Your task to perform on an android device: Go to calendar. Show me events next week Image 0: 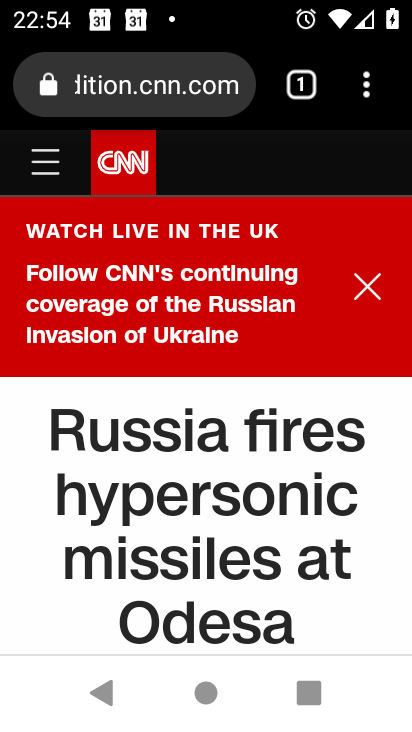
Step 0: press home button
Your task to perform on an android device: Go to calendar. Show me events next week Image 1: 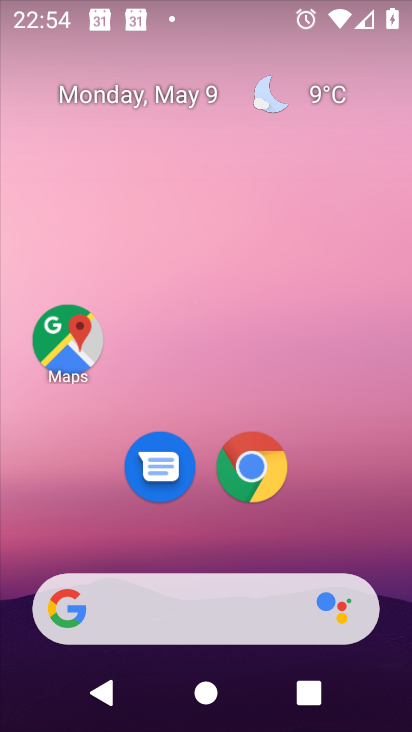
Step 1: drag from (328, 544) to (294, 8)
Your task to perform on an android device: Go to calendar. Show me events next week Image 2: 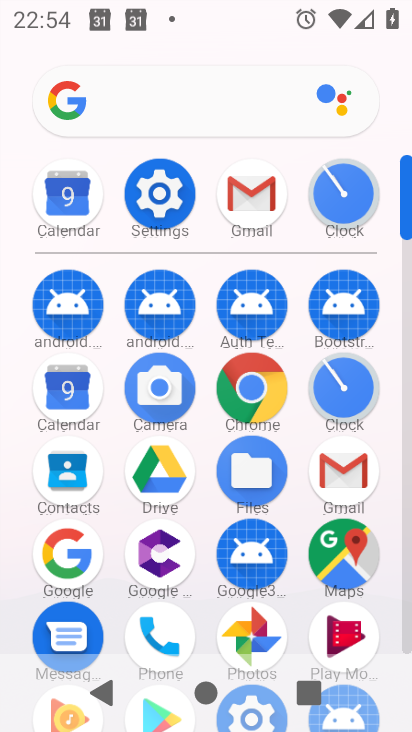
Step 2: click (70, 184)
Your task to perform on an android device: Go to calendar. Show me events next week Image 3: 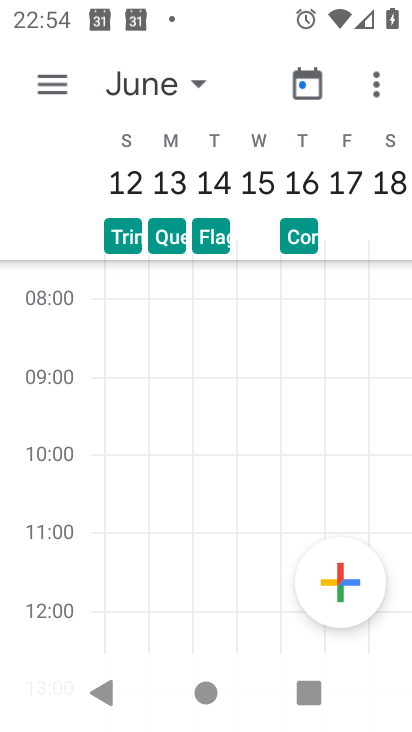
Step 3: click (193, 85)
Your task to perform on an android device: Go to calendar. Show me events next week Image 4: 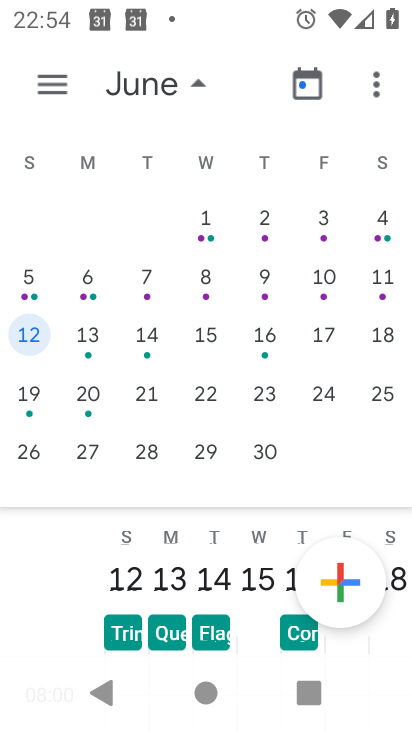
Step 4: drag from (72, 275) to (400, 334)
Your task to perform on an android device: Go to calendar. Show me events next week Image 5: 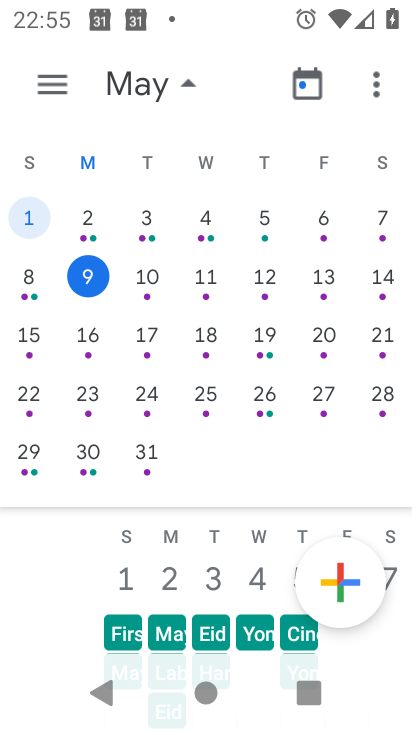
Step 5: click (82, 279)
Your task to perform on an android device: Go to calendar. Show me events next week Image 6: 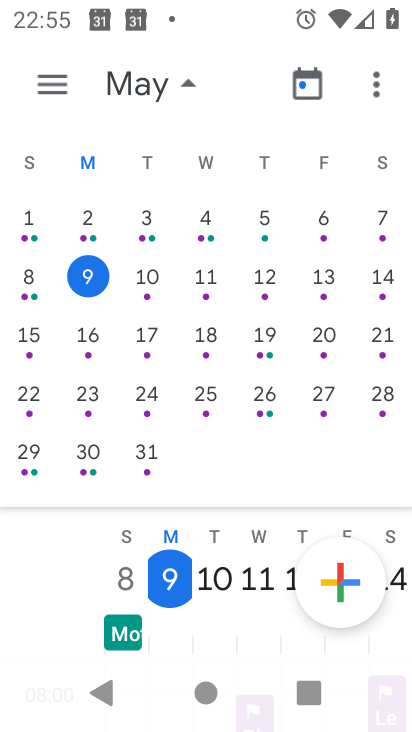
Step 6: click (44, 89)
Your task to perform on an android device: Go to calendar. Show me events next week Image 7: 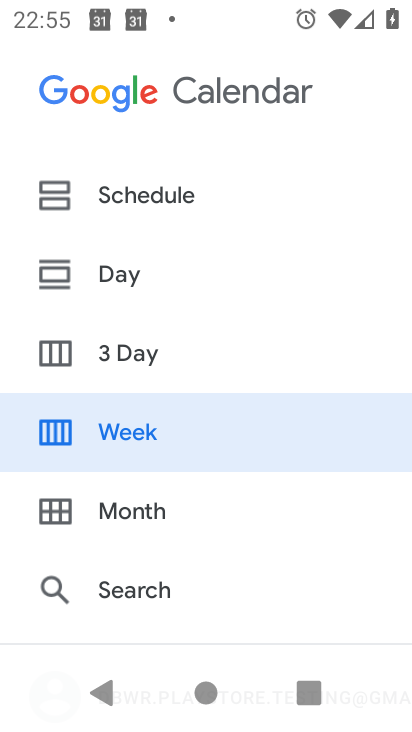
Step 7: click (98, 427)
Your task to perform on an android device: Go to calendar. Show me events next week Image 8: 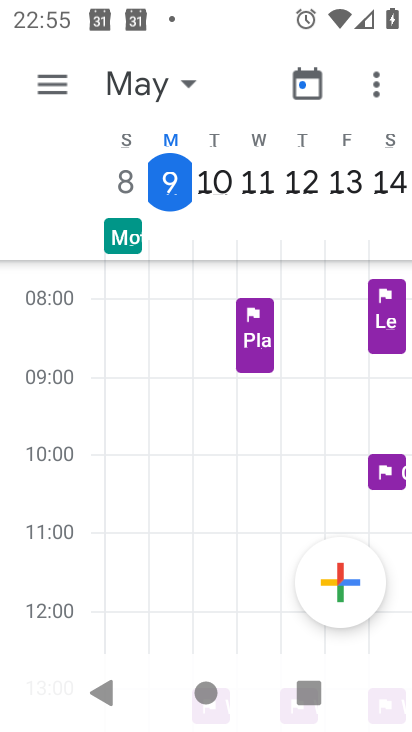
Step 8: drag from (308, 423) to (50, 434)
Your task to perform on an android device: Go to calendar. Show me events next week Image 9: 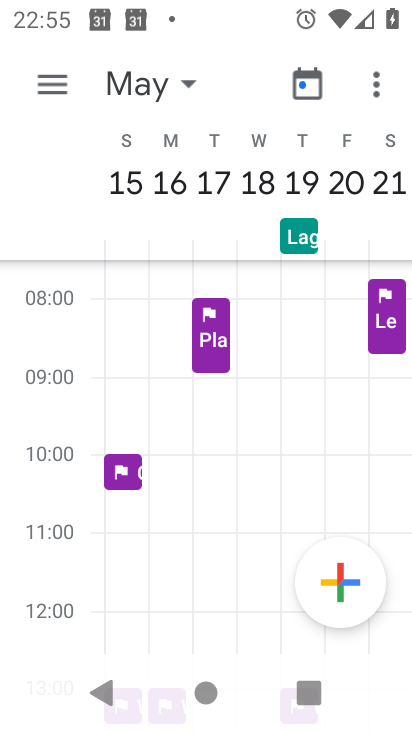
Step 9: drag from (235, 484) to (234, 344)
Your task to perform on an android device: Go to calendar. Show me events next week Image 10: 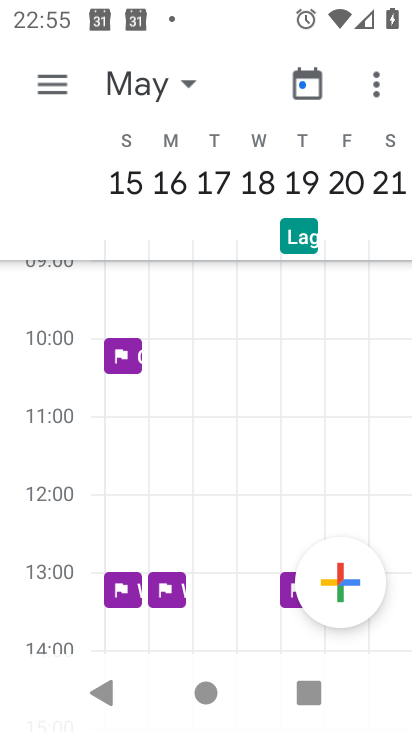
Step 10: click (61, 89)
Your task to perform on an android device: Go to calendar. Show me events next week Image 11: 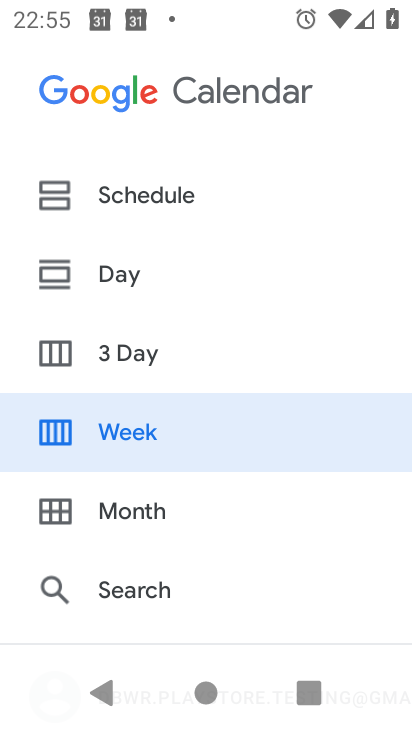
Step 11: drag from (156, 561) to (175, 127)
Your task to perform on an android device: Go to calendar. Show me events next week Image 12: 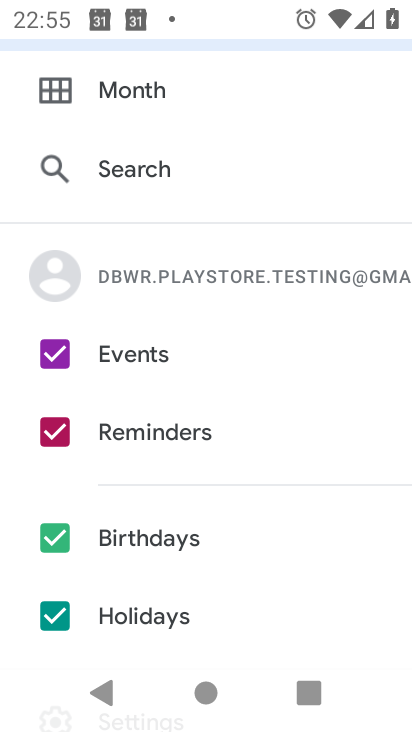
Step 12: click (62, 431)
Your task to perform on an android device: Go to calendar. Show me events next week Image 13: 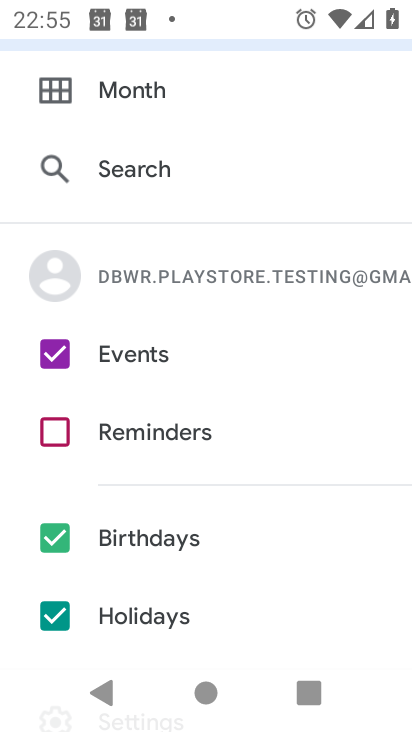
Step 13: click (57, 545)
Your task to perform on an android device: Go to calendar. Show me events next week Image 14: 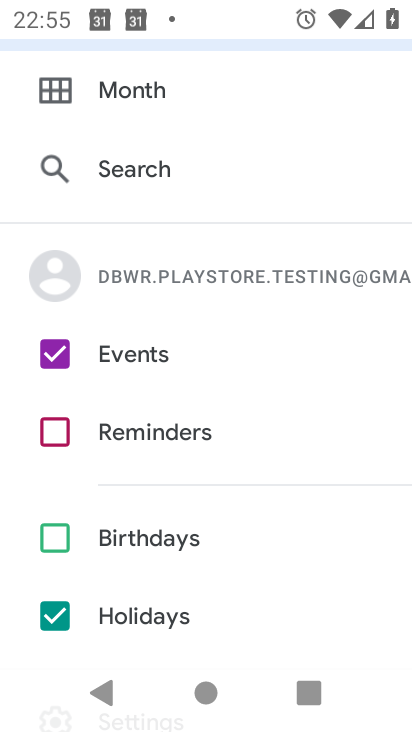
Step 14: click (60, 617)
Your task to perform on an android device: Go to calendar. Show me events next week Image 15: 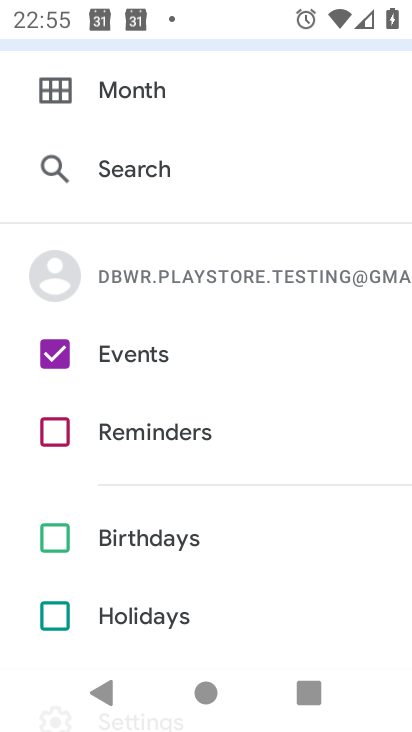
Step 15: drag from (258, 547) to (237, 584)
Your task to perform on an android device: Go to calendar. Show me events next week Image 16: 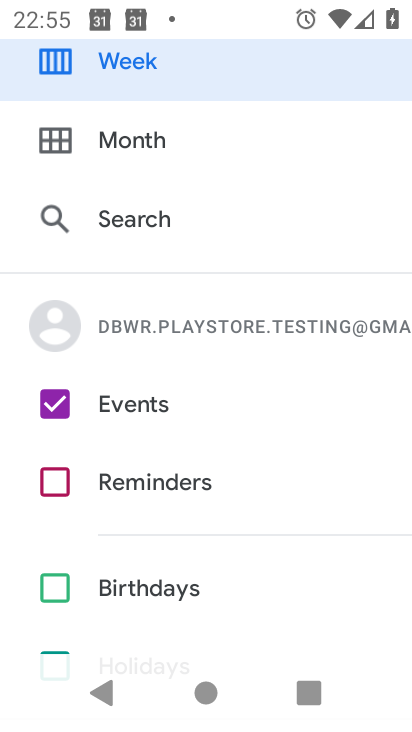
Step 16: click (128, 61)
Your task to perform on an android device: Go to calendar. Show me events next week Image 17: 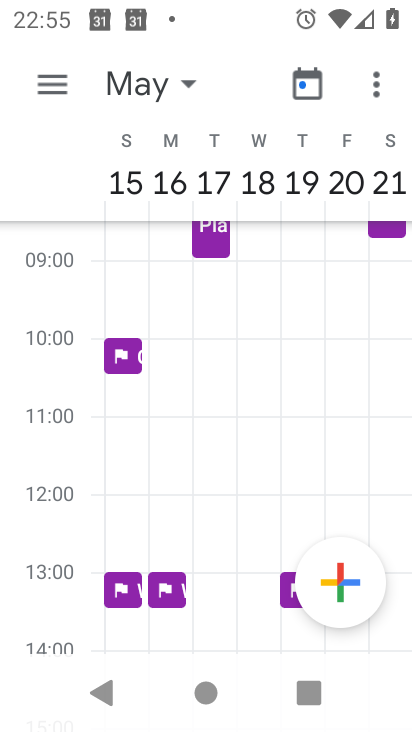
Step 17: task complete